Your task to perform on an android device: Open Google Chrome Image 0: 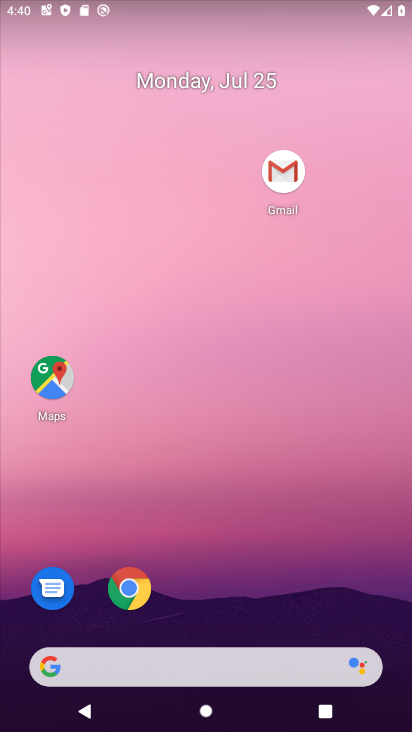
Step 0: drag from (317, 554) to (229, 66)
Your task to perform on an android device: Open Google Chrome Image 1: 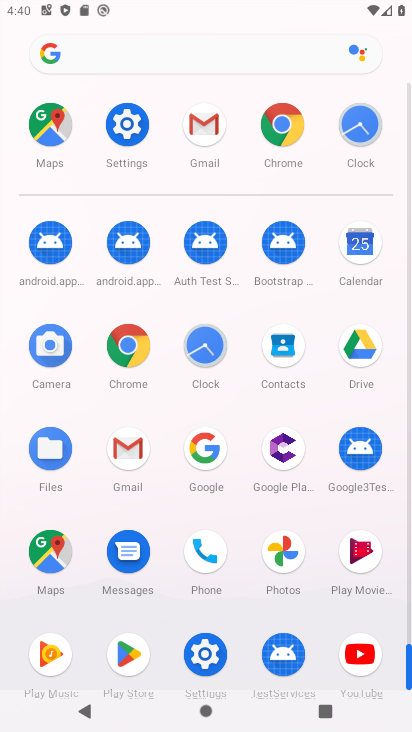
Step 1: click (290, 132)
Your task to perform on an android device: Open Google Chrome Image 2: 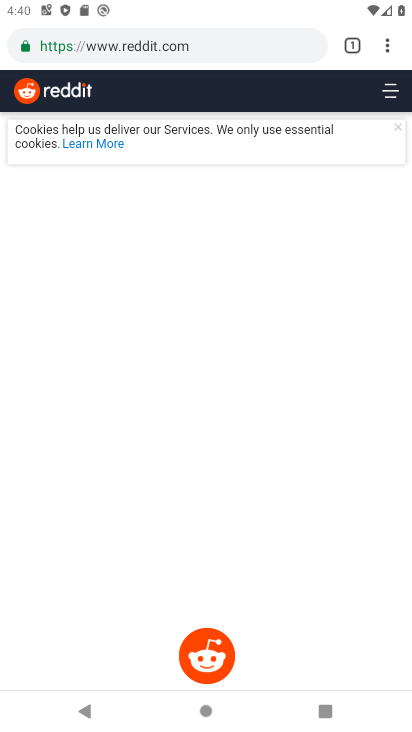
Step 2: task complete